Your task to perform on an android device: Search for sushi restaurants on Maps Image 0: 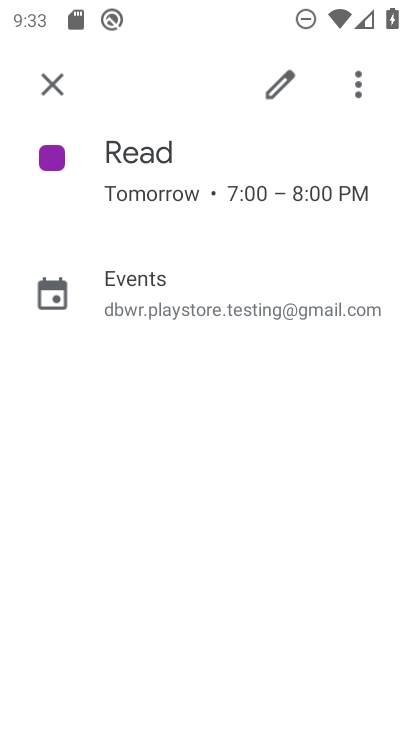
Step 0: press home button
Your task to perform on an android device: Search for sushi restaurants on Maps Image 1: 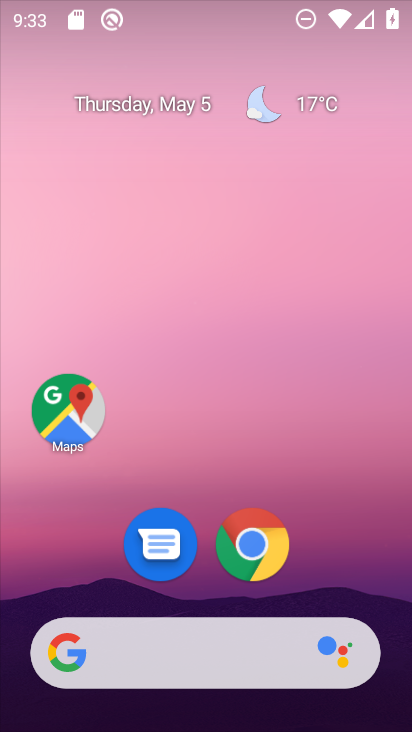
Step 1: drag from (399, 659) to (247, 26)
Your task to perform on an android device: Search for sushi restaurants on Maps Image 2: 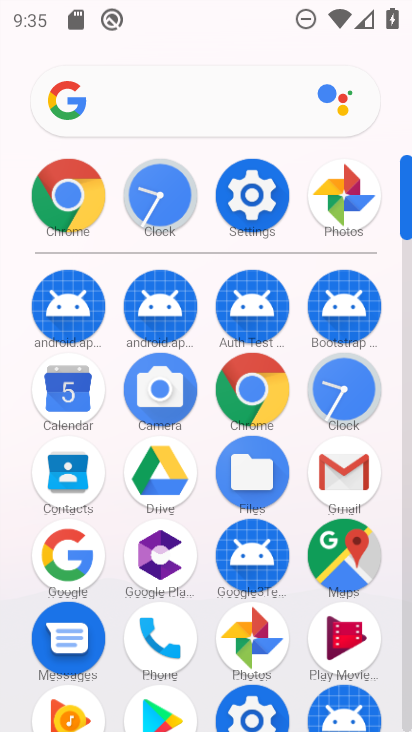
Step 2: click (348, 560)
Your task to perform on an android device: Search for sushi restaurants on Maps Image 3: 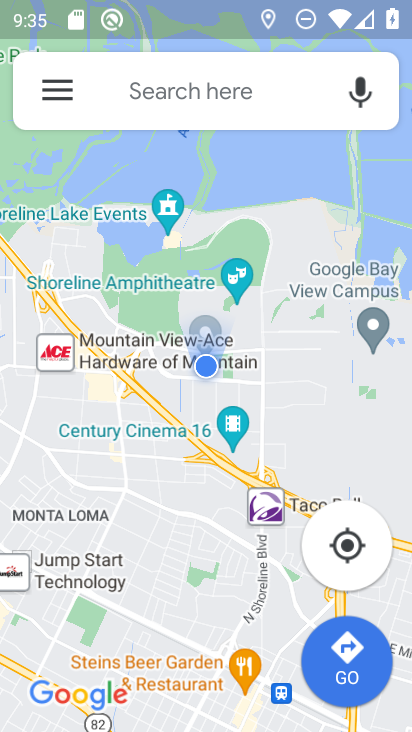
Step 3: click (199, 85)
Your task to perform on an android device: Search for sushi restaurants on Maps Image 4: 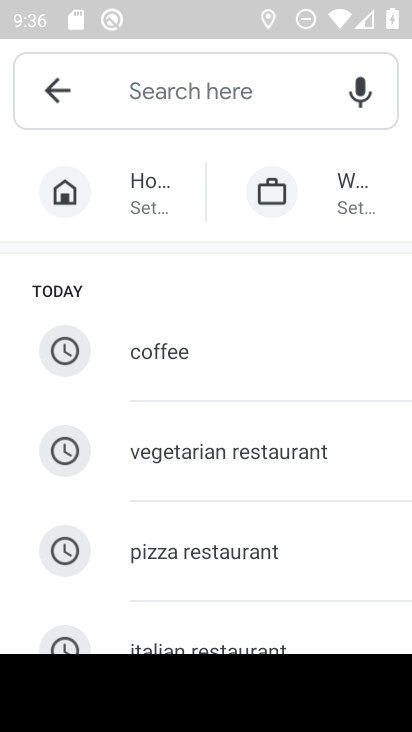
Step 4: drag from (228, 591) to (186, 172)
Your task to perform on an android device: Search for sushi restaurants on Maps Image 5: 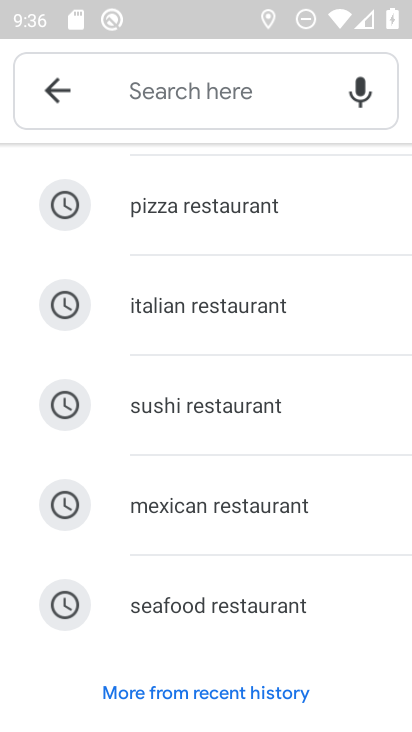
Step 5: click (190, 402)
Your task to perform on an android device: Search for sushi restaurants on Maps Image 6: 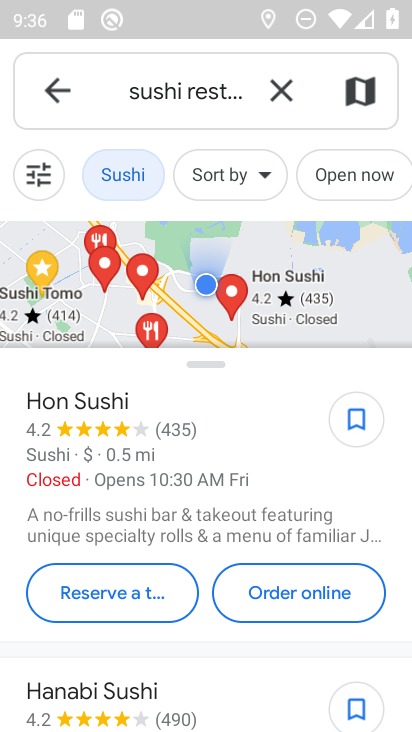
Step 6: task complete